Your task to perform on an android device: check android version Image 0: 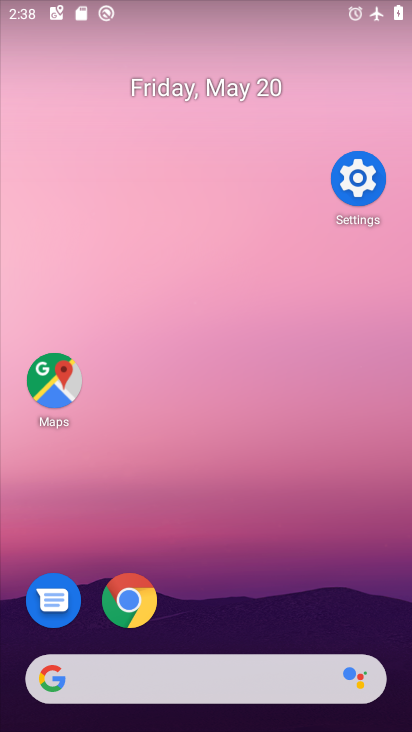
Step 0: click (407, 213)
Your task to perform on an android device: check android version Image 1: 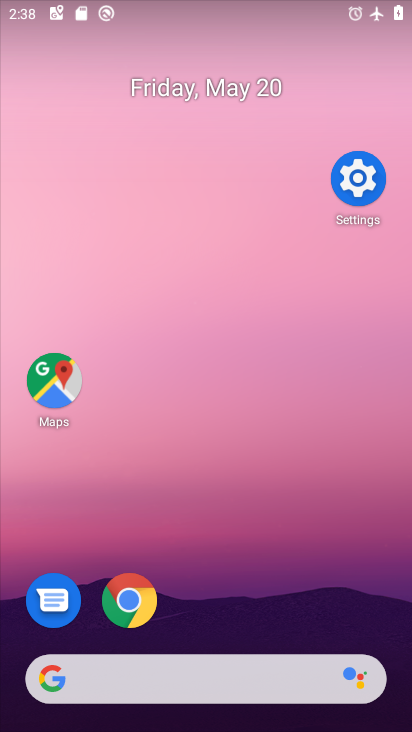
Step 1: drag from (237, 606) to (312, 23)
Your task to perform on an android device: check android version Image 2: 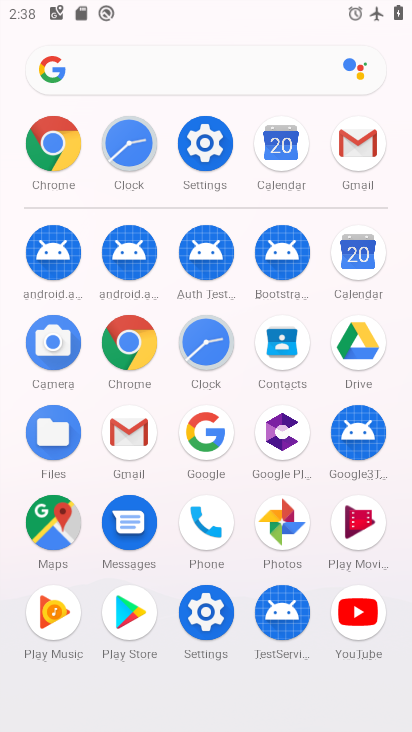
Step 2: click (213, 619)
Your task to perform on an android device: check android version Image 3: 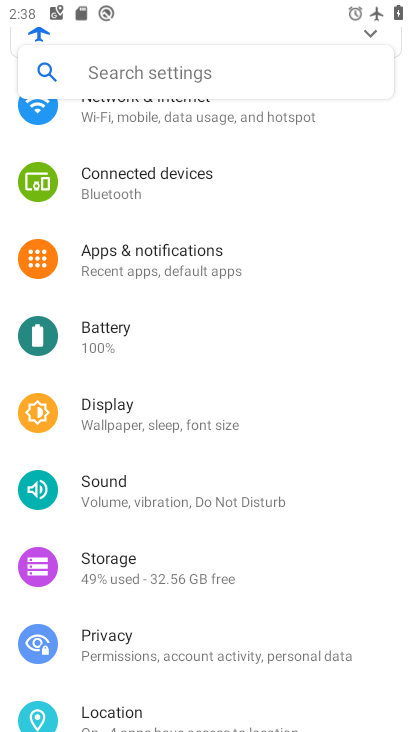
Step 3: drag from (162, 551) to (230, 86)
Your task to perform on an android device: check android version Image 4: 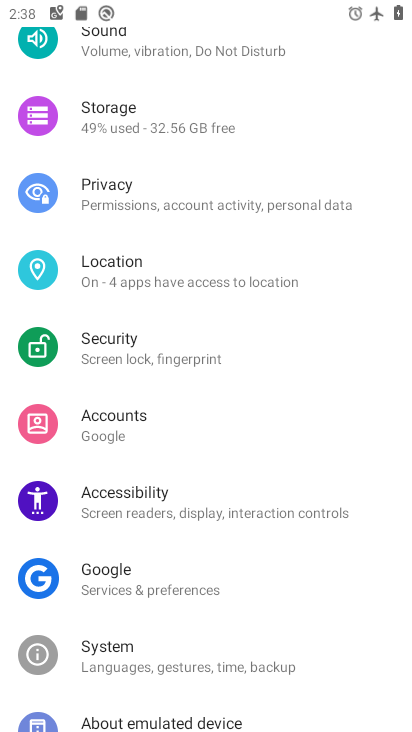
Step 4: drag from (181, 529) to (206, 81)
Your task to perform on an android device: check android version Image 5: 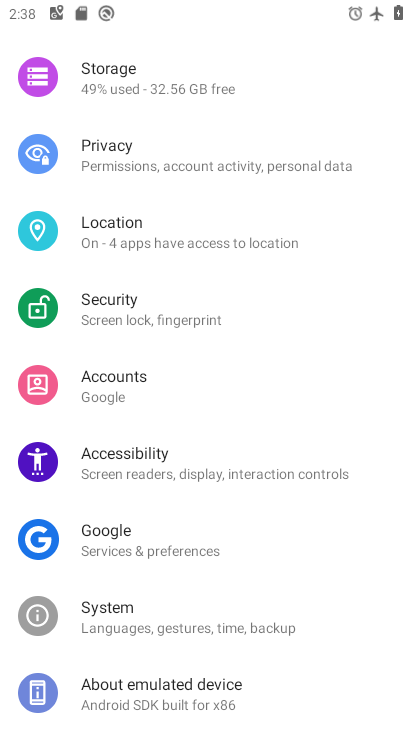
Step 5: click (173, 687)
Your task to perform on an android device: check android version Image 6: 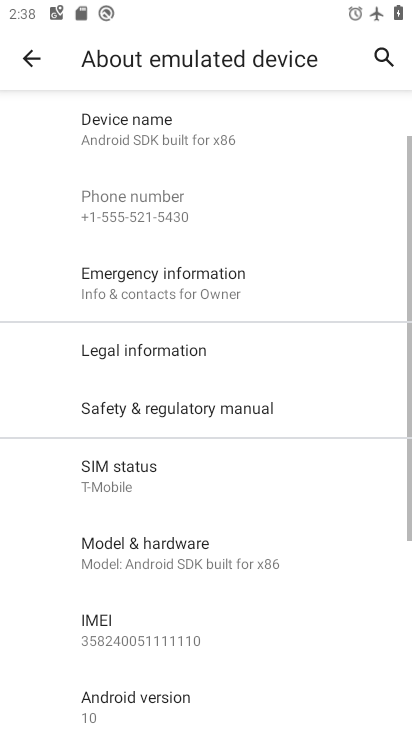
Step 6: drag from (144, 604) to (176, 409)
Your task to perform on an android device: check android version Image 7: 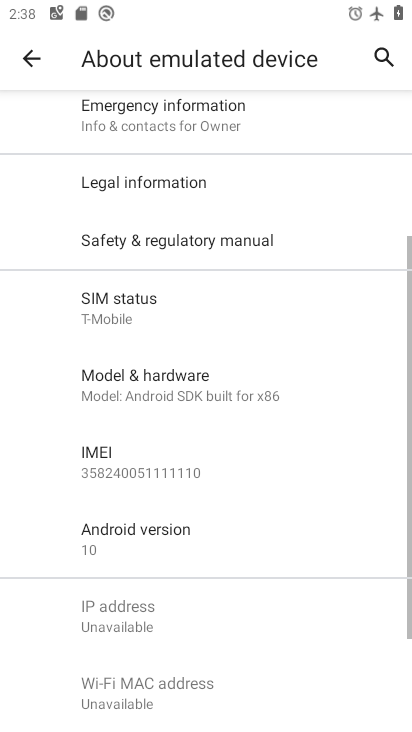
Step 7: click (155, 548)
Your task to perform on an android device: check android version Image 8: 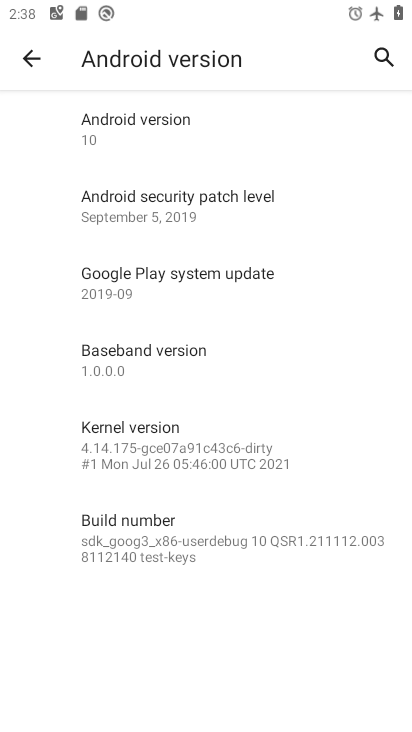
Step 8: task complete